Your task to perform on an android device: Open Maps and search for coffee Image 0: 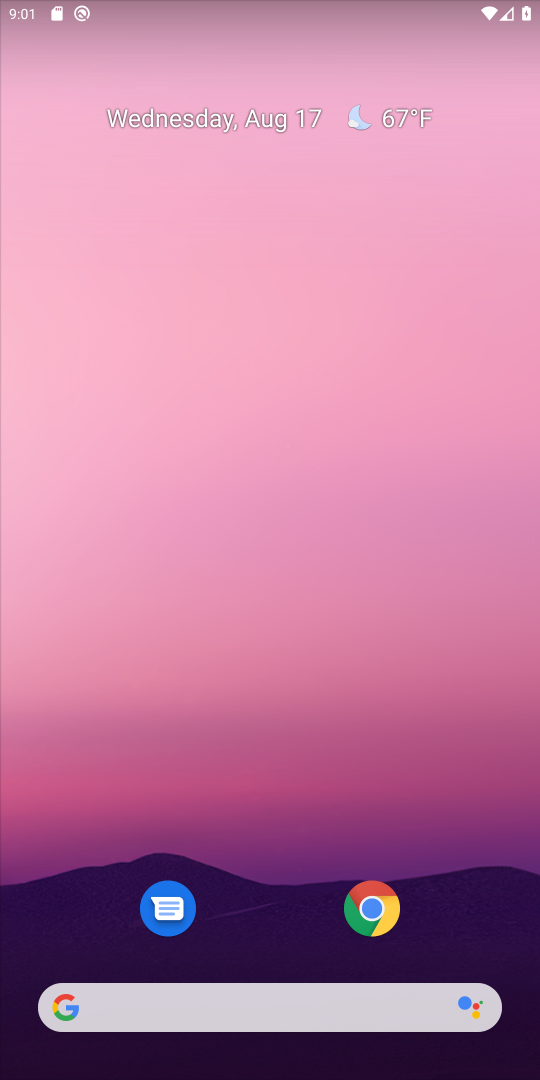
Step 0: drag from (285, 923) to (261, 79)
Your task to perform on an android device: Open Maps and search for coffee Image 1: 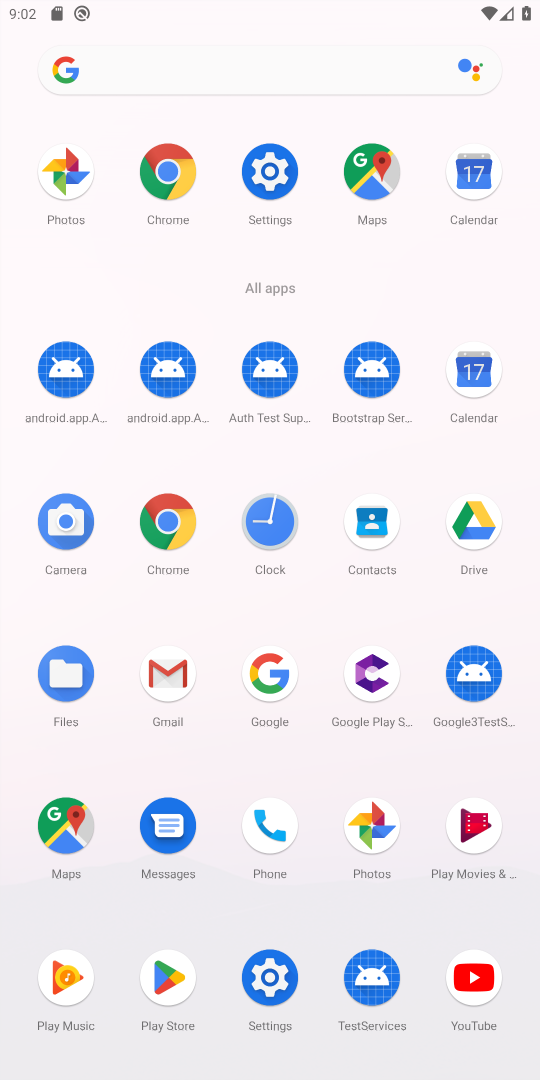
Step 1: click (378, 165)
Your task to perform on an android device: Open Maps and search for coffee Image 2: 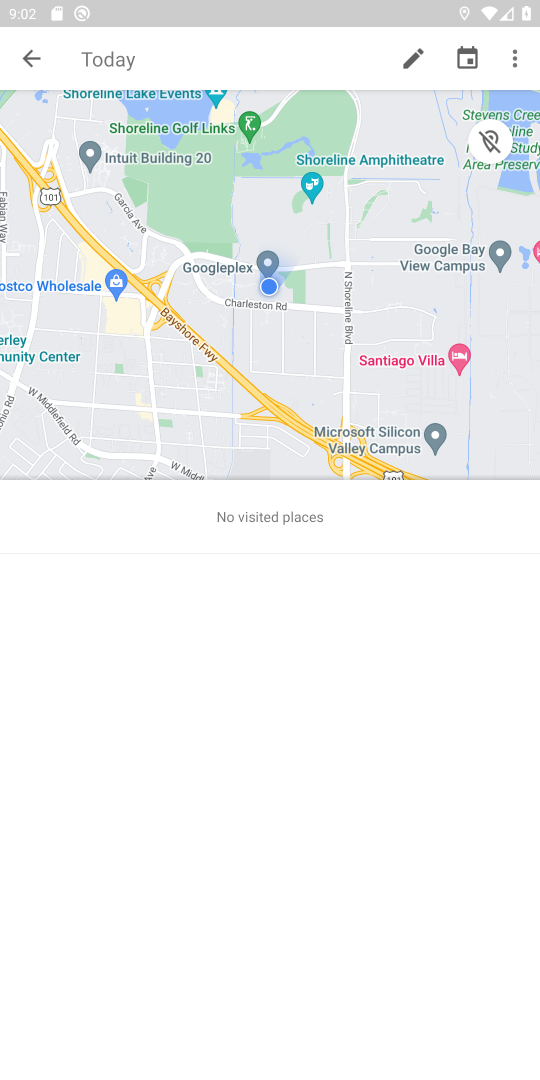
Step 2: click (512, 58)
Your task to perform on an android device: Open Maps and search for coffee Image 3: 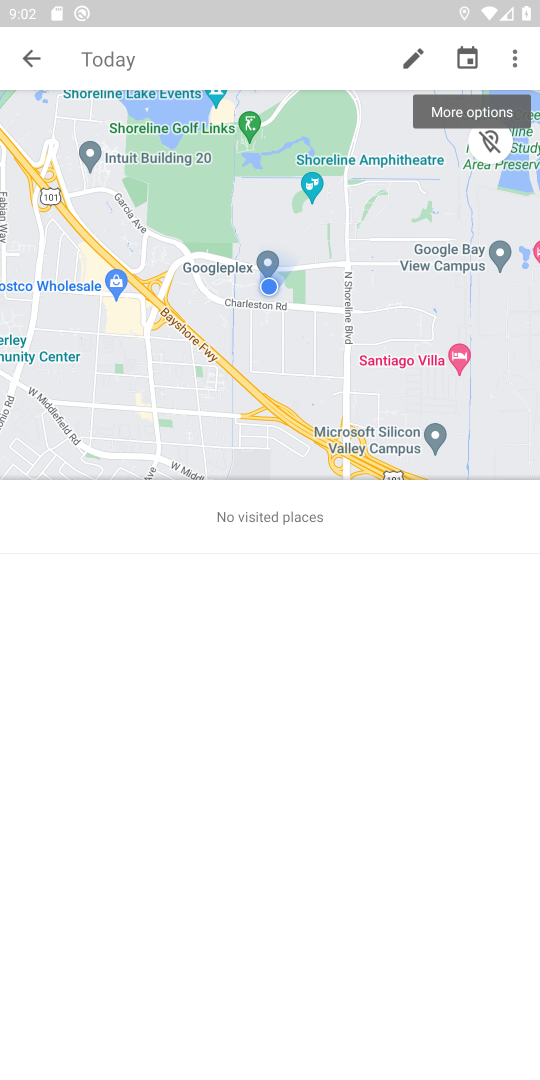
Step 3: click (30, 48)
Your task to perform on an android device: Open Maps and search for coffee Image 4: 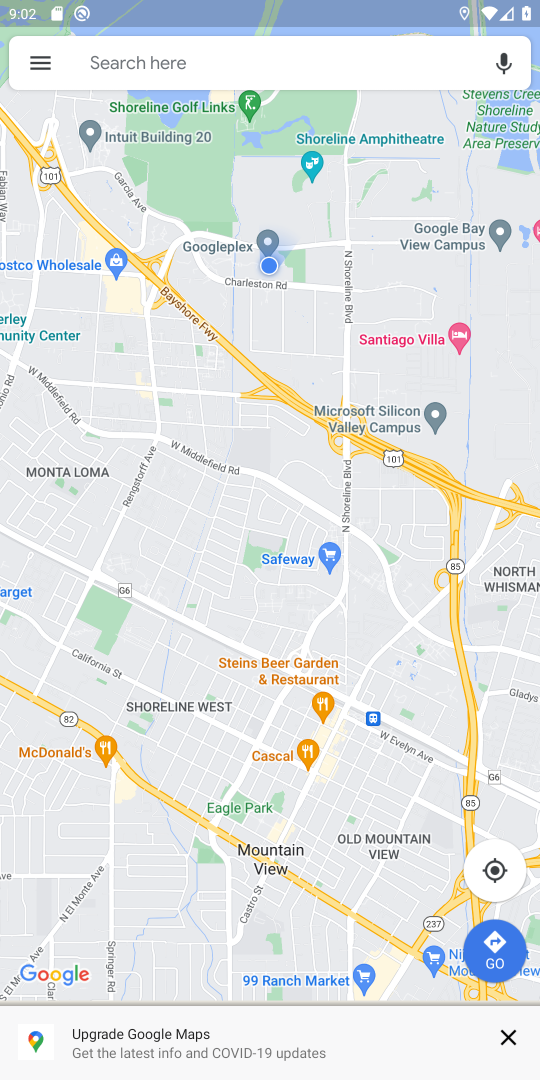
Step 4: click (169, 66)
Your task to perform on an android device: Open Maps and search for coffee Image 5: 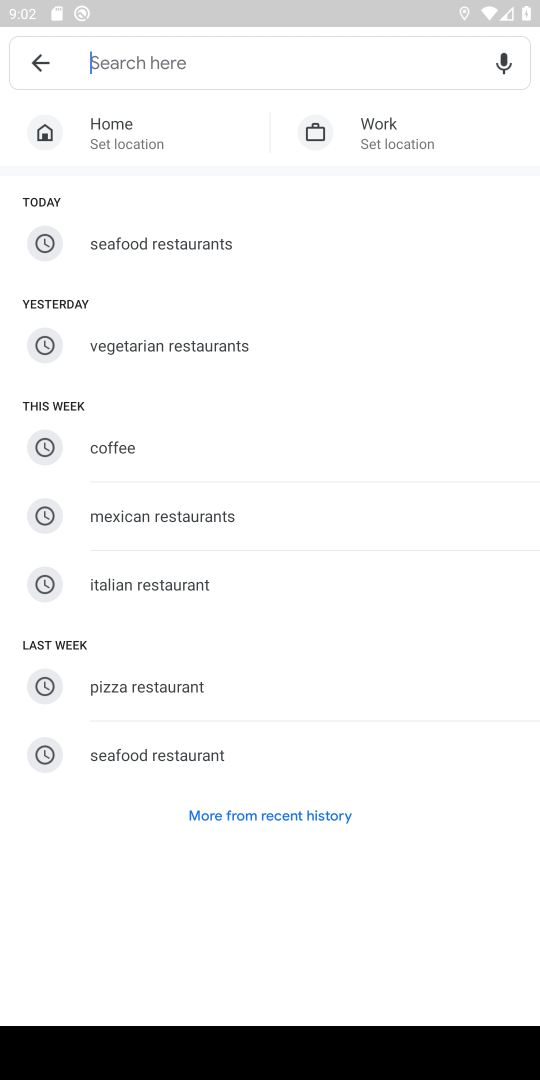
Step 5: type " coffee"
Your task to perform on an android device: Open Maps and search for coffee Image 6: 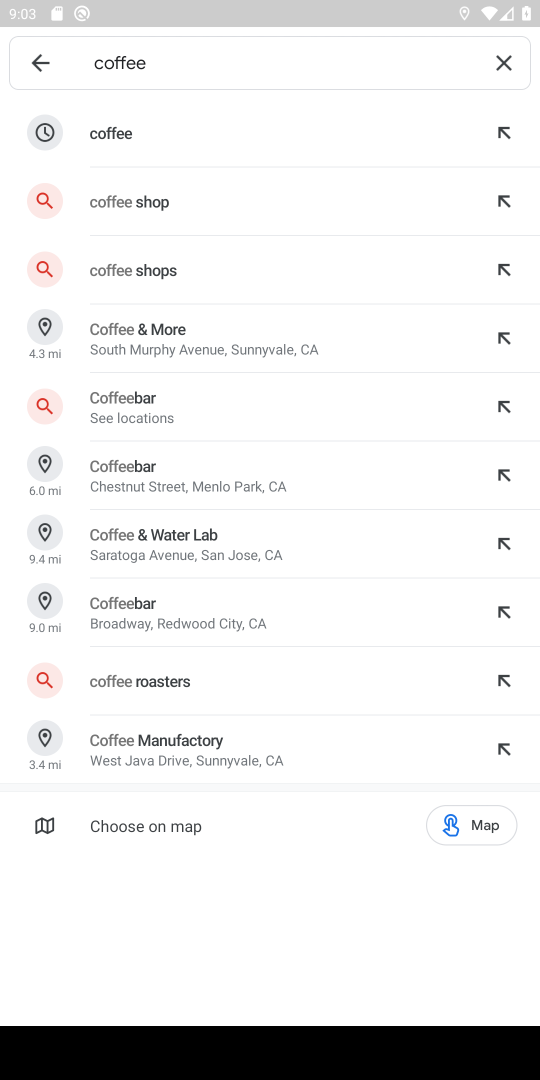
Step 6: click (102, 115)
Your task to perform on an android device: Open Maps and search for coffee Image 7: 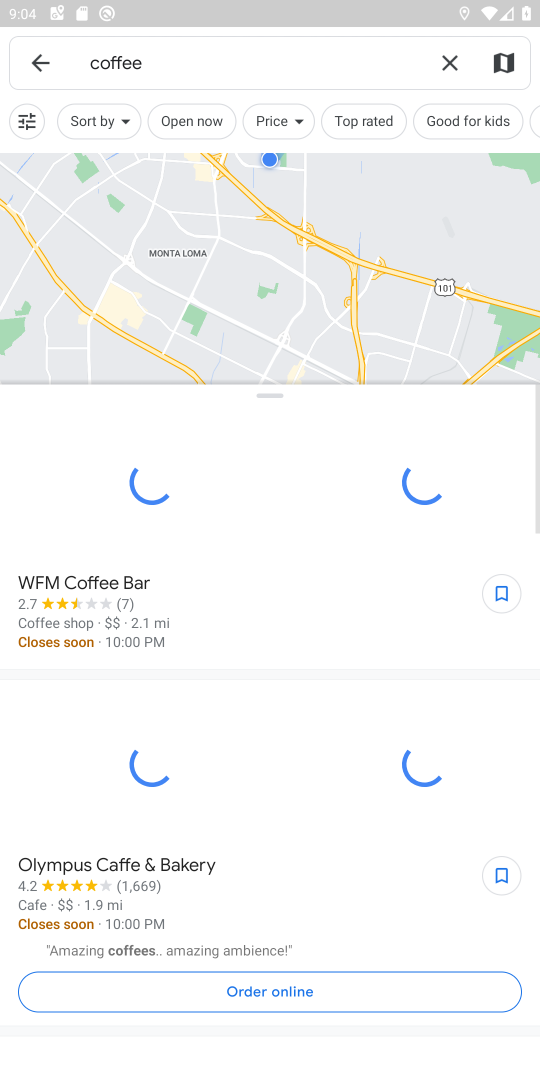
Step 7: task complete